Your task to perform on an android device: turn pop-ups on in chrome Image 0: 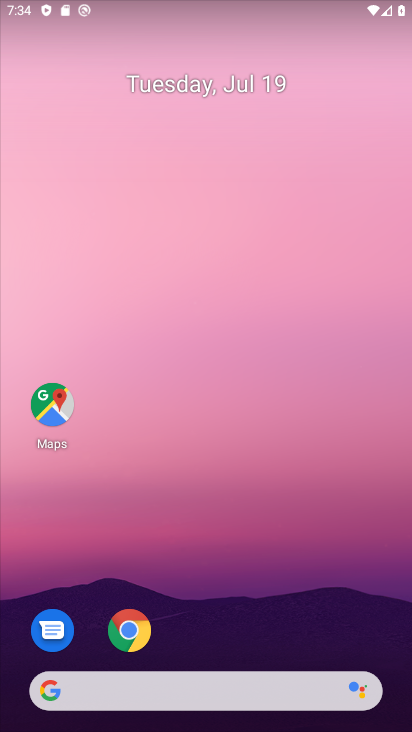
Step 0: click (131, 635)
Your task to perform on an android device: turn pop-ups on in chrome Image 1: 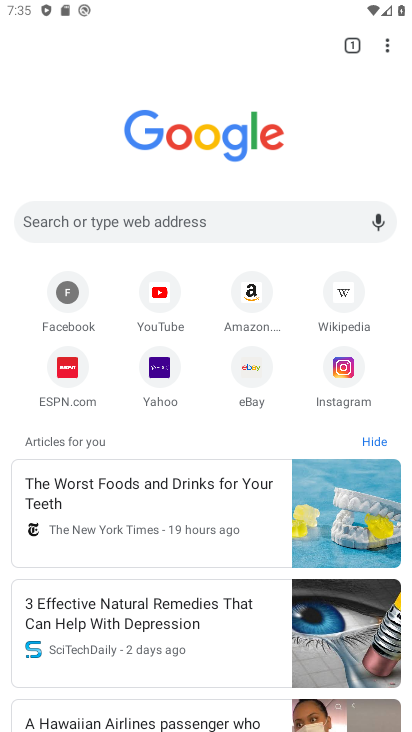
Step 1: task complete